Your task to perform on an android device: Open the calendar app, open the side menu, and click the "Day" option Image 0: 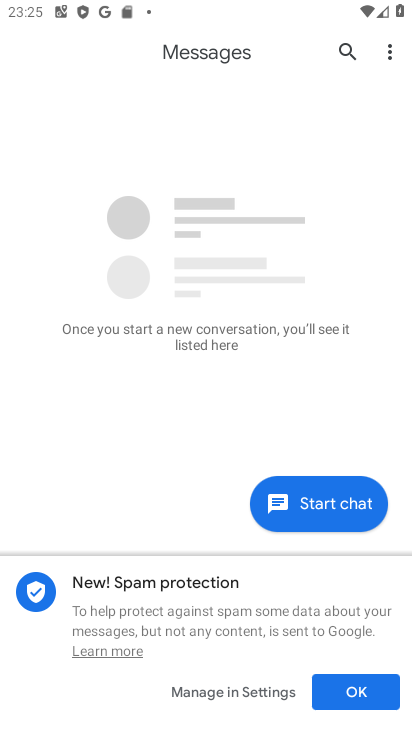
Step 0: press home button
Your task to perform on an android device: Open the calendar app, open the side menu, and click the "Day" option Image 1: 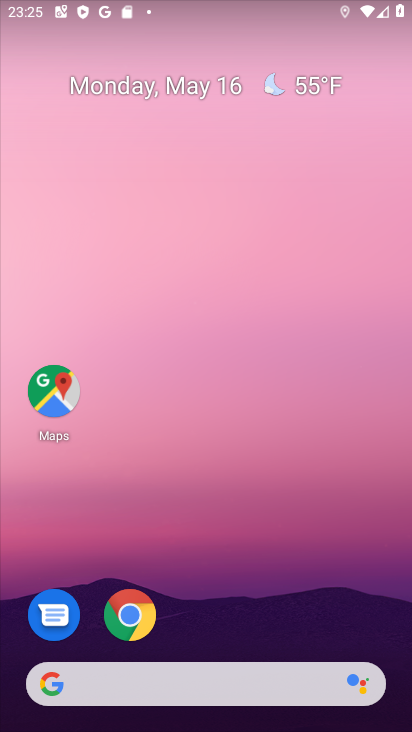
Step 1: drag from (207, 643) to (190, 21)
Your task to perform on an android device: Open the calendar app, open the side menu, and click the "Day" option Image 2: 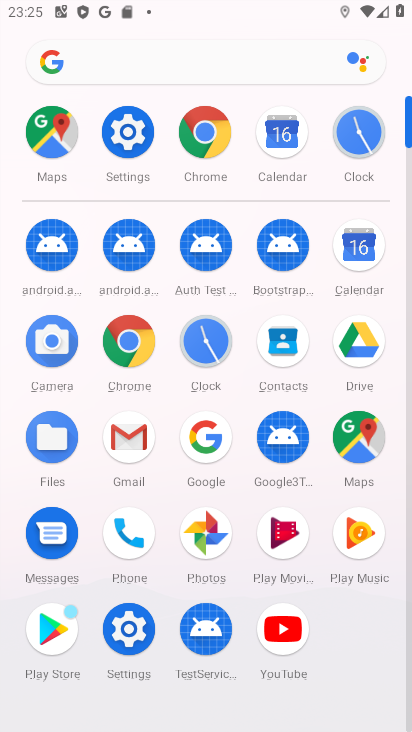
Step 2: click (370, 237)
Your task to perform on an android device: Open the calendar app, open the side menu, and click the "Day" option Image 3: 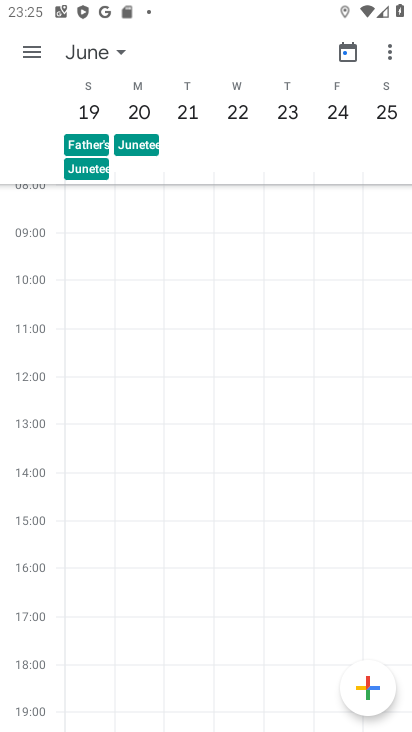
Step 3: click (32, 52)
Your task to perform on an android device: Open the calendar app, open the side menu, and click the "Day" option Image 4: 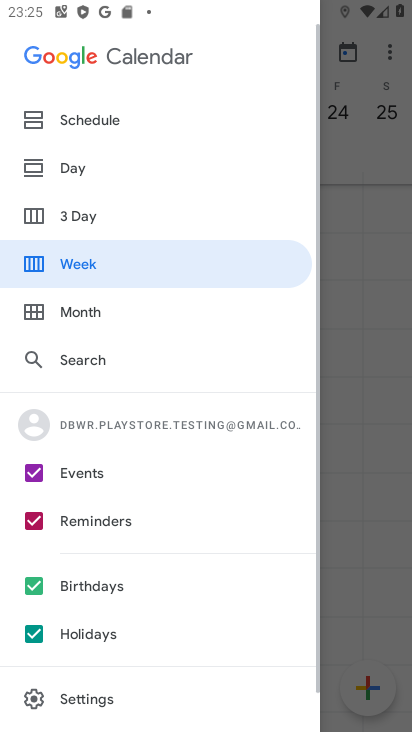
Step 4: click (82, 161)
Your task to perform on an android device: Open the calendar app, open the side menu, and click the "Day" option Image 5: 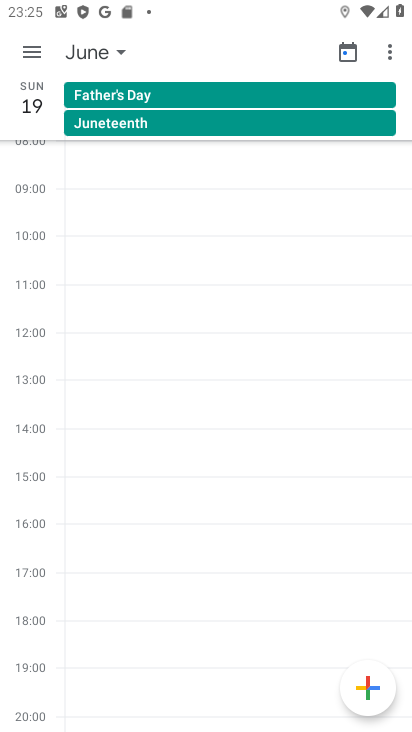
Step 5: task complete